Your task to perform on an android device: turn on notifications settings in the gmail app Image 0: 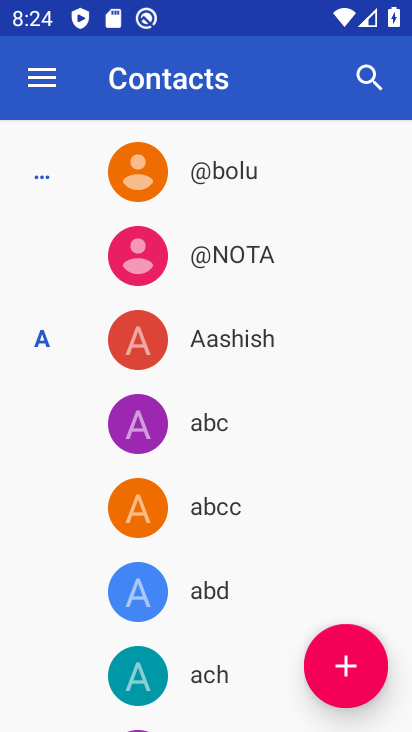
Step 0: press back button
Your task to perform on an android device: turn on notifications settings in the gmail app Image 1: 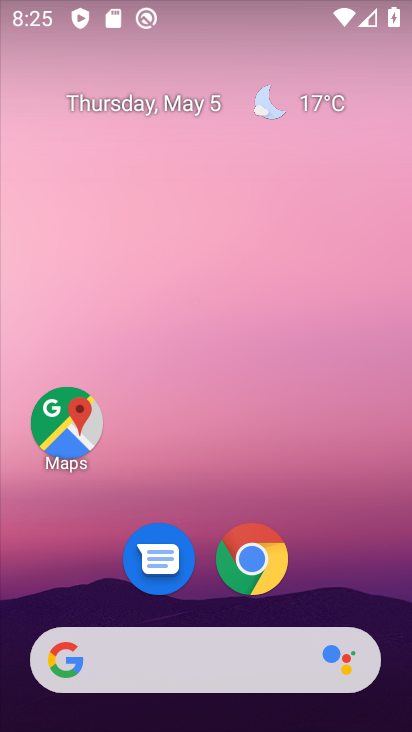
Step 1: drag from (209, 552) to (271, 64)
Your task to perform on an android device: turn on notifications settings in the gmail app Image 2: 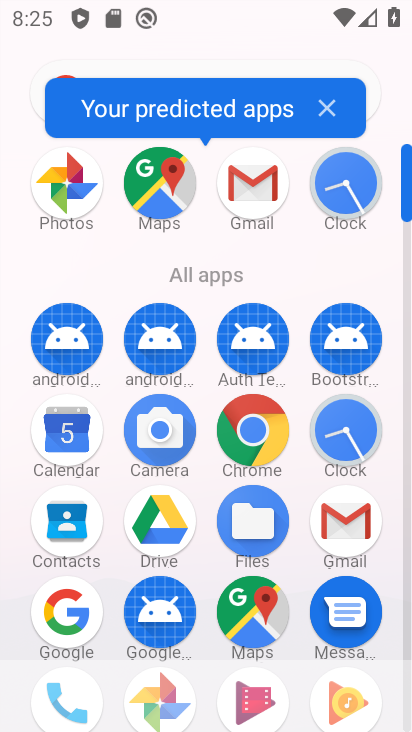
Step 2: click (256, 188)
Your task to perform on an android device: turn on notifications settings in the gmail app Image 3: 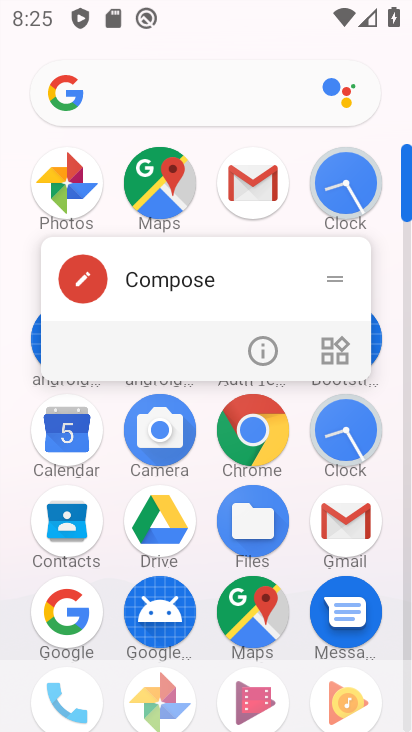
Step 3: click (265, 347)
Your task to perform on an android device: turn on notifications settings in the gmail app Image 4: 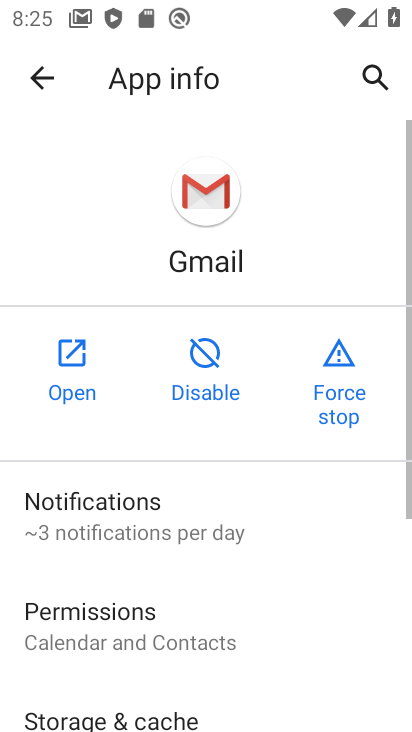
Step 4: click (140, 508)
Your task to perform on an android device: turn on notifications settings in the gmail app Image 5: 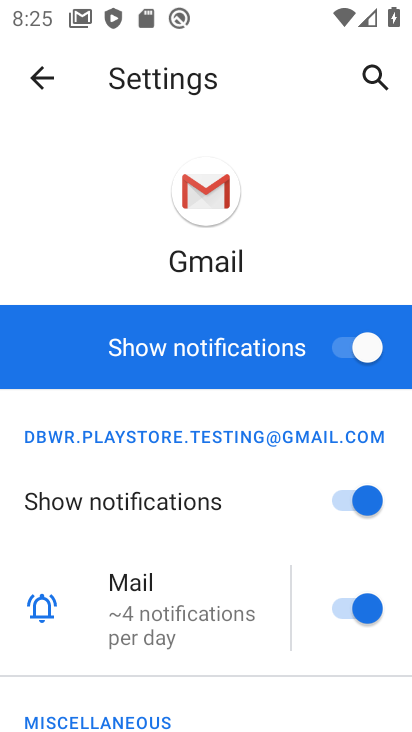
Step 5: task complete